Your task to perform on an android device: find which apps use the phone's location Image 0: 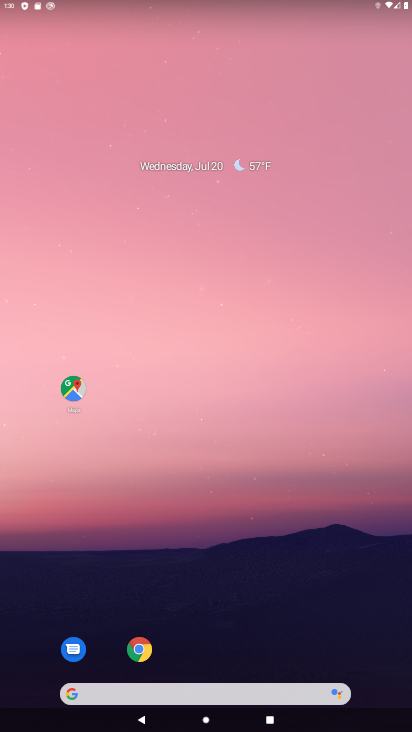
Step 0: drag from (191, 627) to (230, 264)
Your task to perform on an android device: find which apps use the phone's location Image 1: 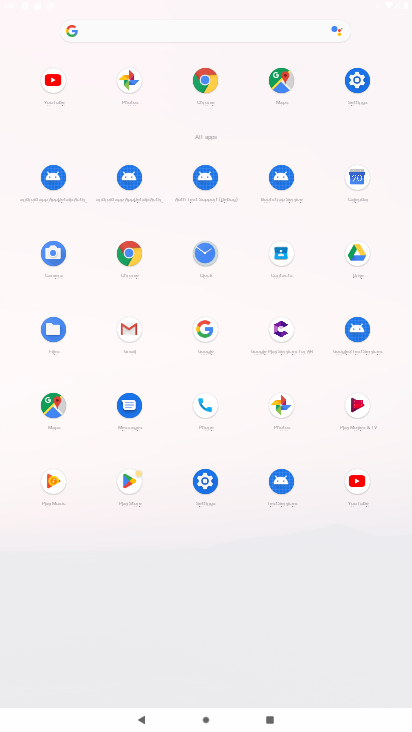
Step 1: click (340, 79)
Your task to perform on an android device: find which apps use the phone's location Image 2: 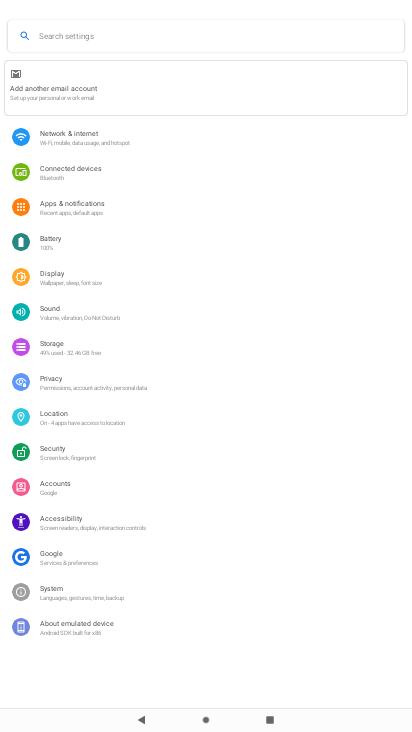
Step 2: click (66, 411)
Your task to perform on an android device: find which apps use the phone's location Image 3: 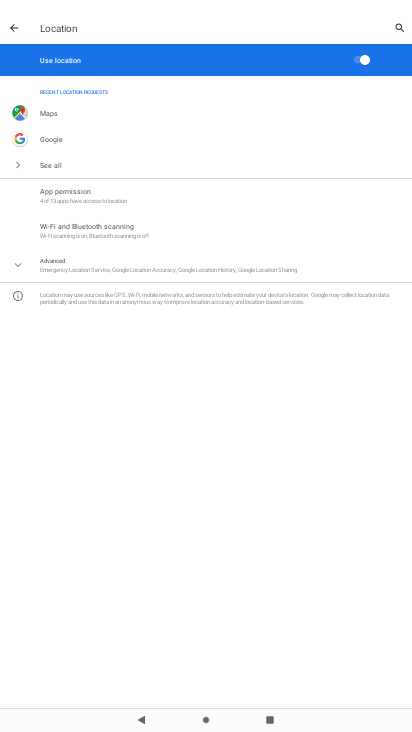
Step 3: click (58, 167)
Your task to perform on an android device: find which apps use the phone's location Image 4: 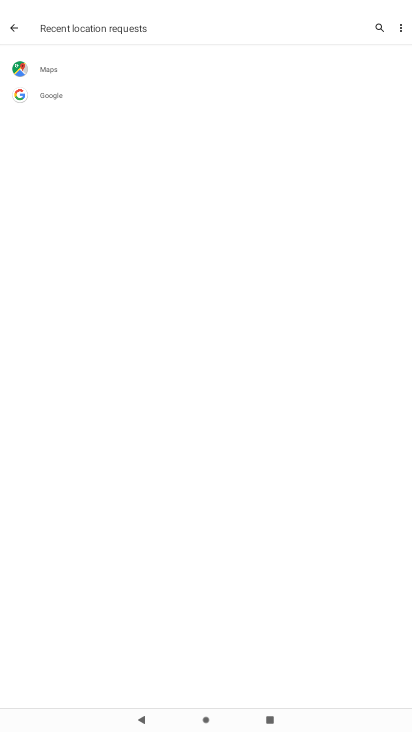
Step 4: task complete